Your task to perform on an android device: change the clock display to analog Image 0: 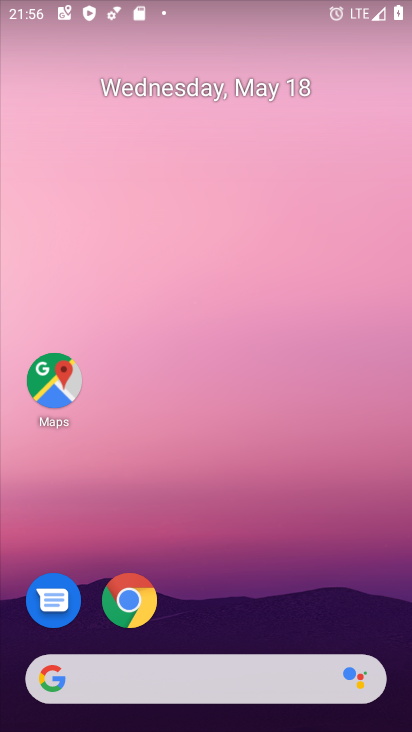
Step 0: drag from (245, 588) to (361, 36)
Your task to perform on an android device: change the clock display to analog Image 1: 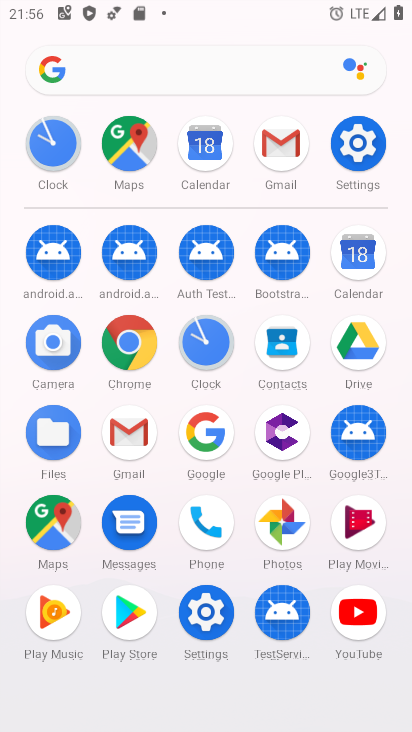
Step 1: click (213, 353)
Your task to perform on an android device: change the clock display to analog Image 2: 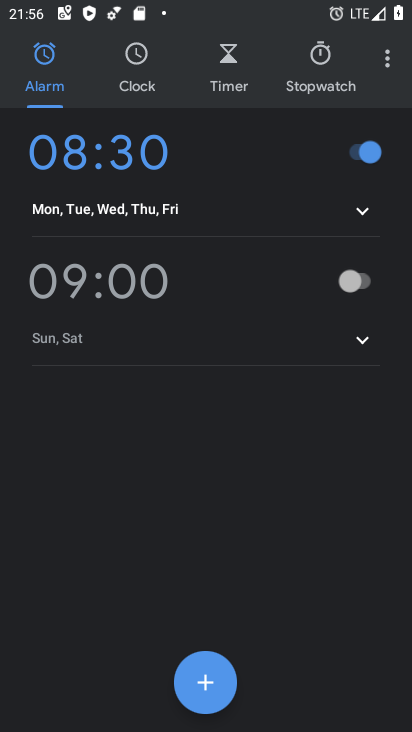
Step 2: click (375, 60)
Your task to perform on an android device: change the clock display to analog Image 3: 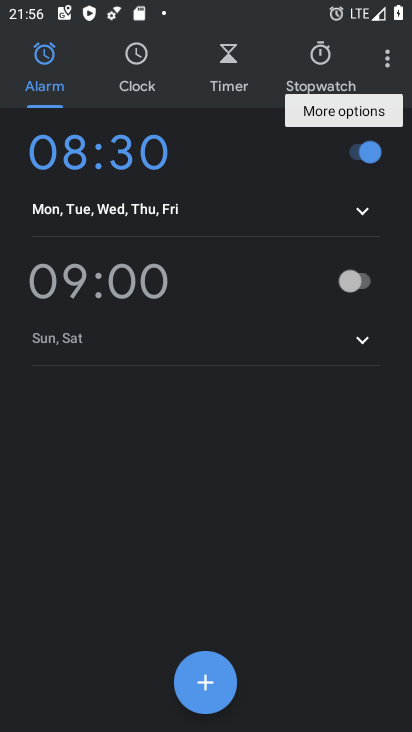
Step 3: click (385, 54)
Your task to perform on an android device: change the clock display to analog Image 4: 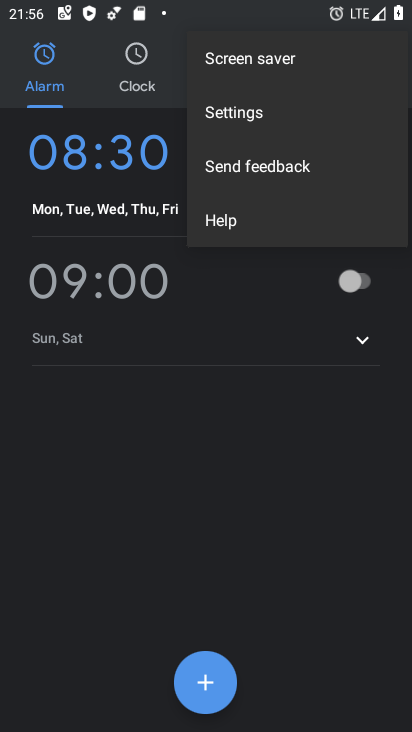
Step 4: click (282, 118)
Your task to perform on an android device: change the clock display to analog Image 5: 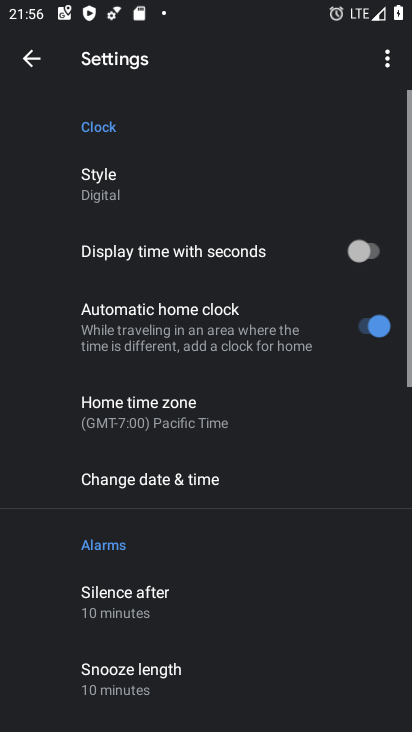
Step 5: click (132, 197)
Your task to perform on an android device: change the clock display to analog Image 6: 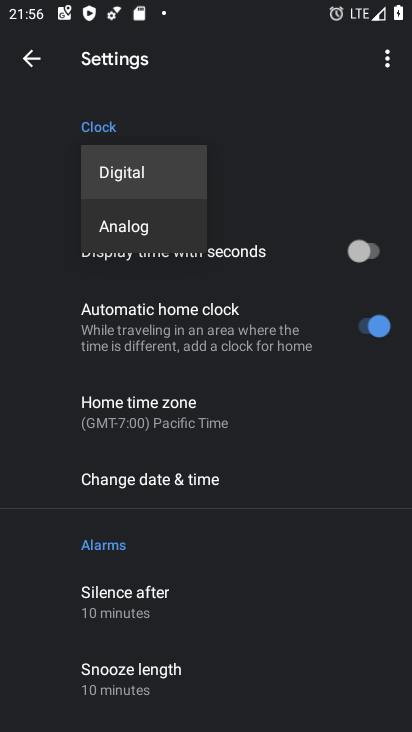
Step 6: click (164, 232)
Your task to perform on an android device: change the clock display to analog Image 7: 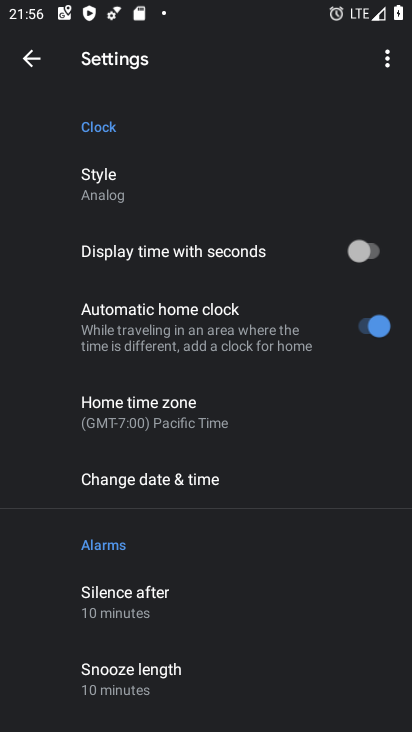
Step 7: task complete